Your task to perform on an android device: Do I have any events today? Image 0: 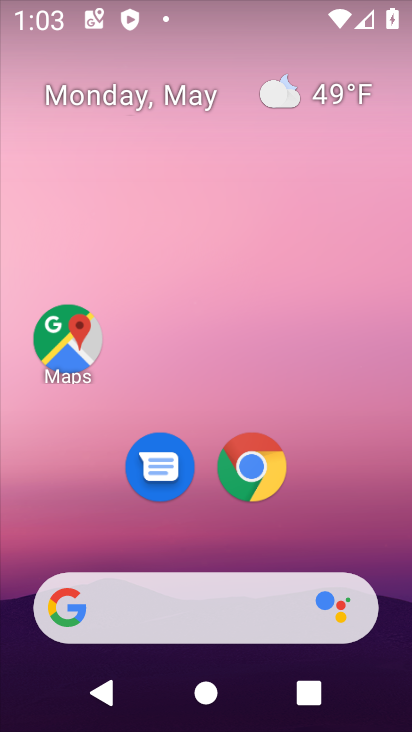
Step 0: drag from (386, 518) to (357, 83)
Your task to perform on an android device: Do I have any events today? Image 1: 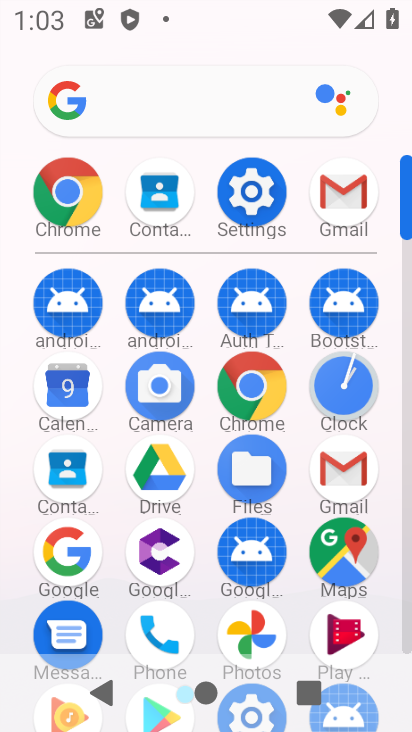
Step 1: click (71, 406)
Your task to perform on an android device: Do I have any events today? Image 2: 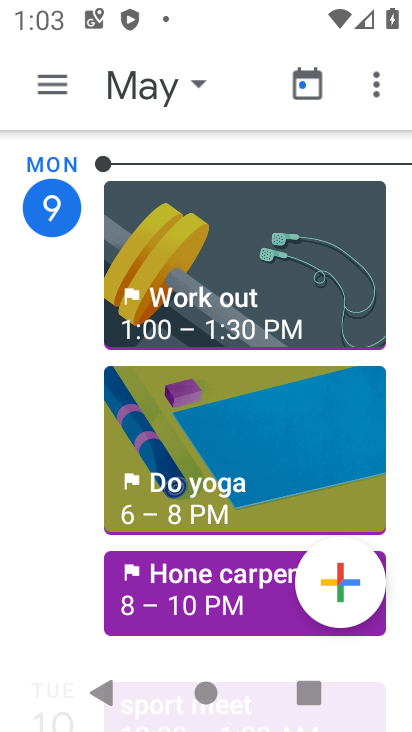
Step 2: click (140, 83)
Your task to perform on an android device: Do I have any events today? Image 3: 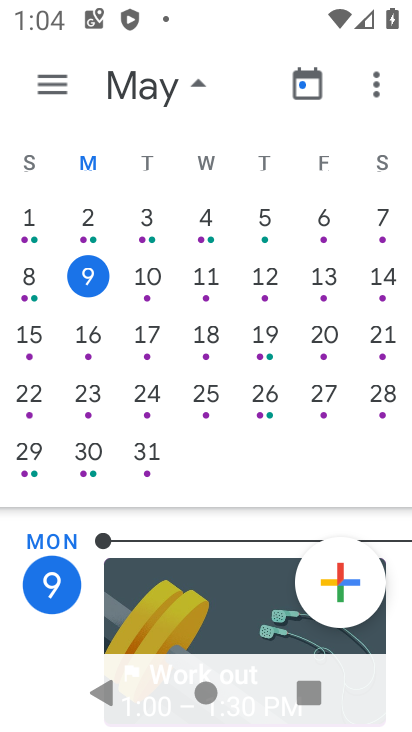
Step 3: task complete